Your task to perform on an android device: Clear all items from cart on target. Search for razer huntsman on target, select the first entry, and add it to the cart. Image 0: 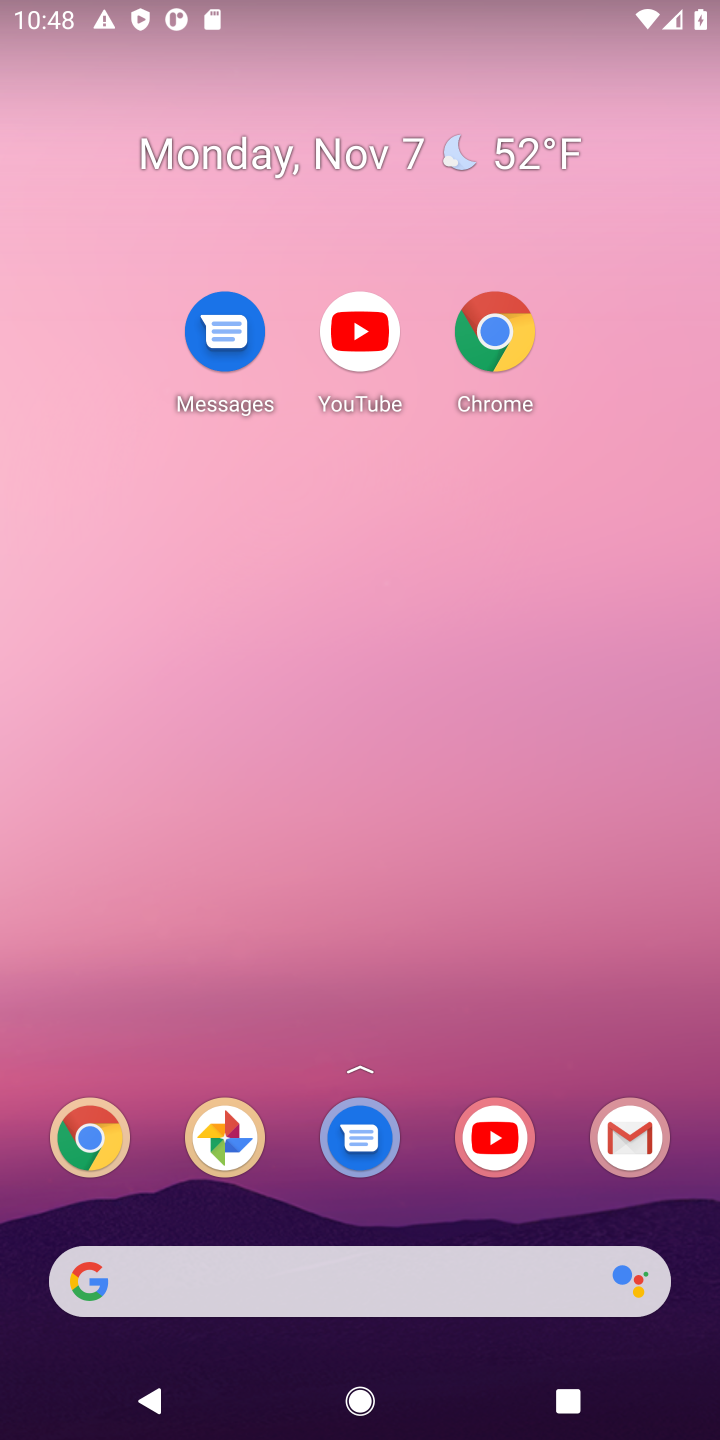
Step 0: drag from (380, 819) to (394, 286)
Your task to perform on an android device: Clear all items from cart on target. Search for razer huntsman on target, select the first entry, and add it to the cart. Image 1: 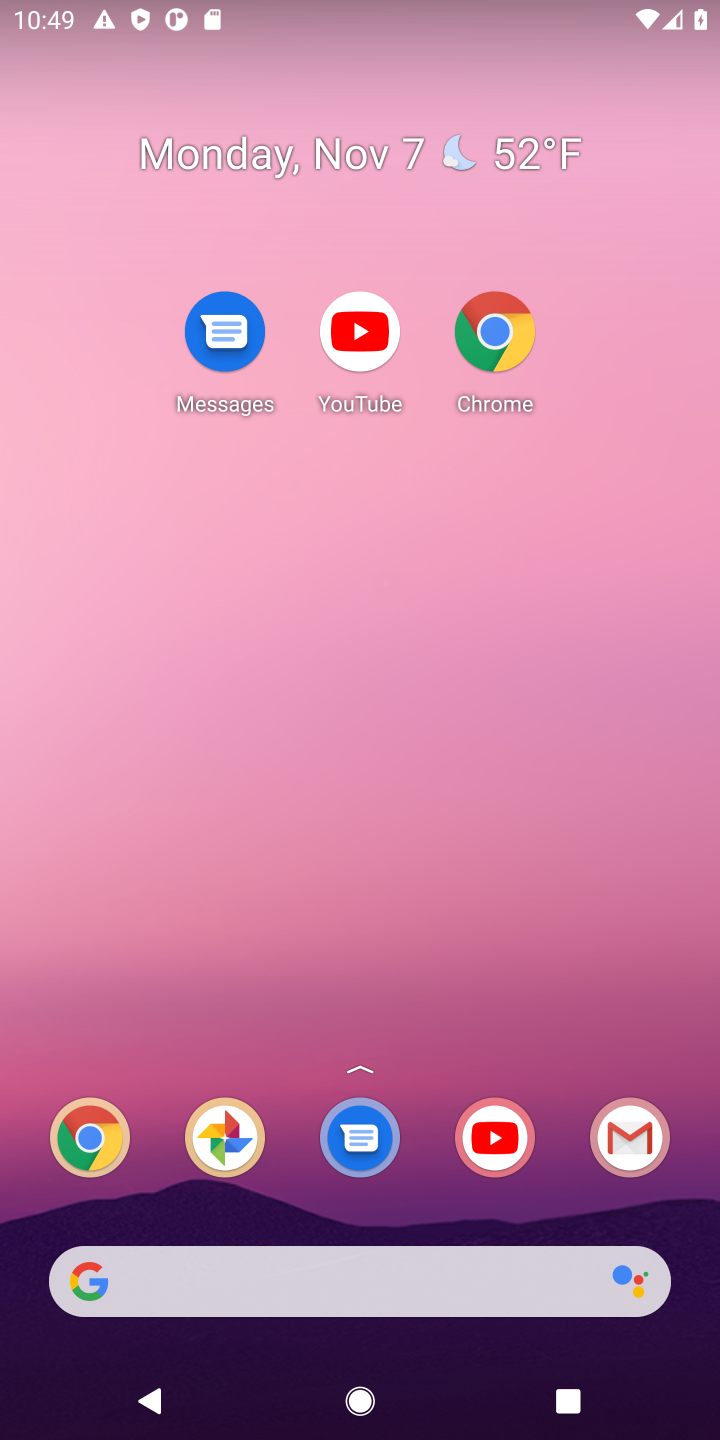
Step 1: drag from (429, 1181) to (415, 72)
Your task to perform on an android device: Clear all items from cart on target. Search for razer huntsman on target, select the first entry, and add it to the cart. Image 2: 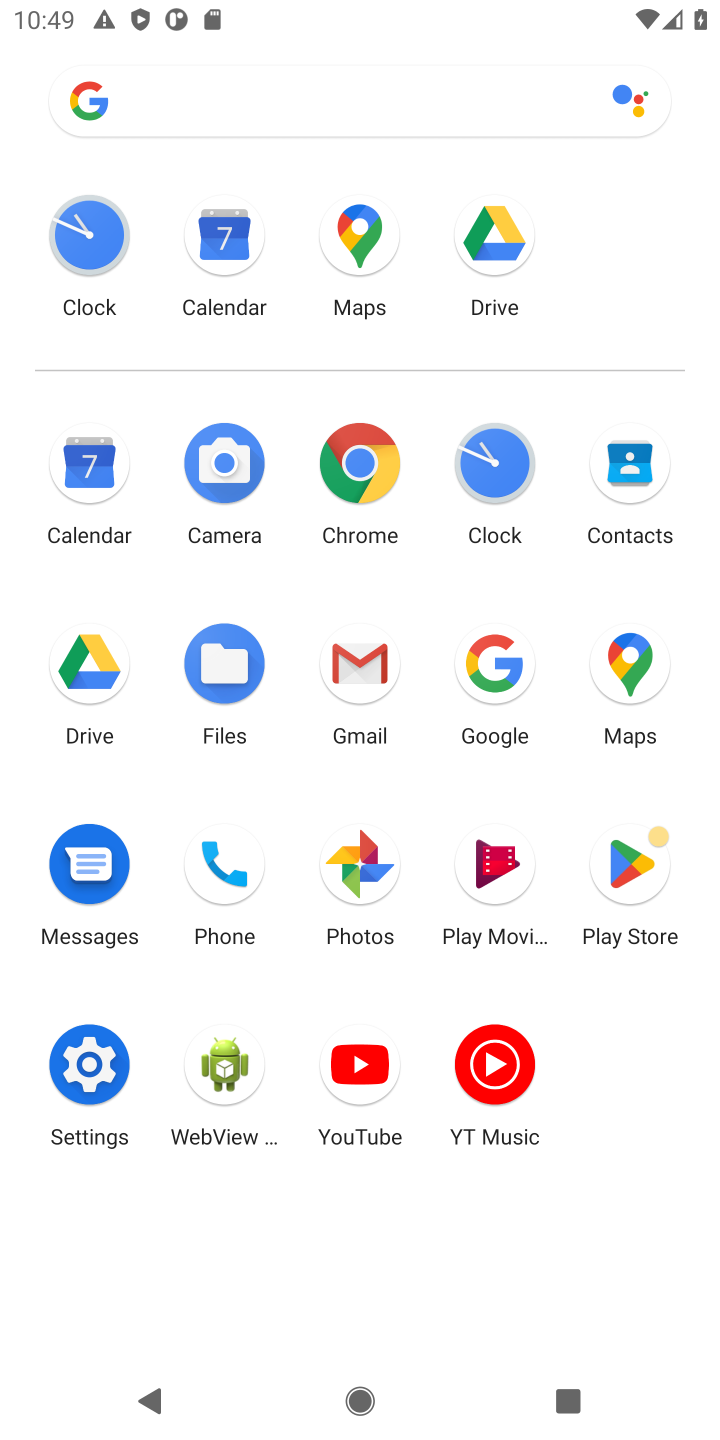
Step 2: click (357, 470)
Your task to perform on an android device: Clear all items from cart on target. Search for razer huntsman on target, select the first entry, and add it to the cart. Image 3: 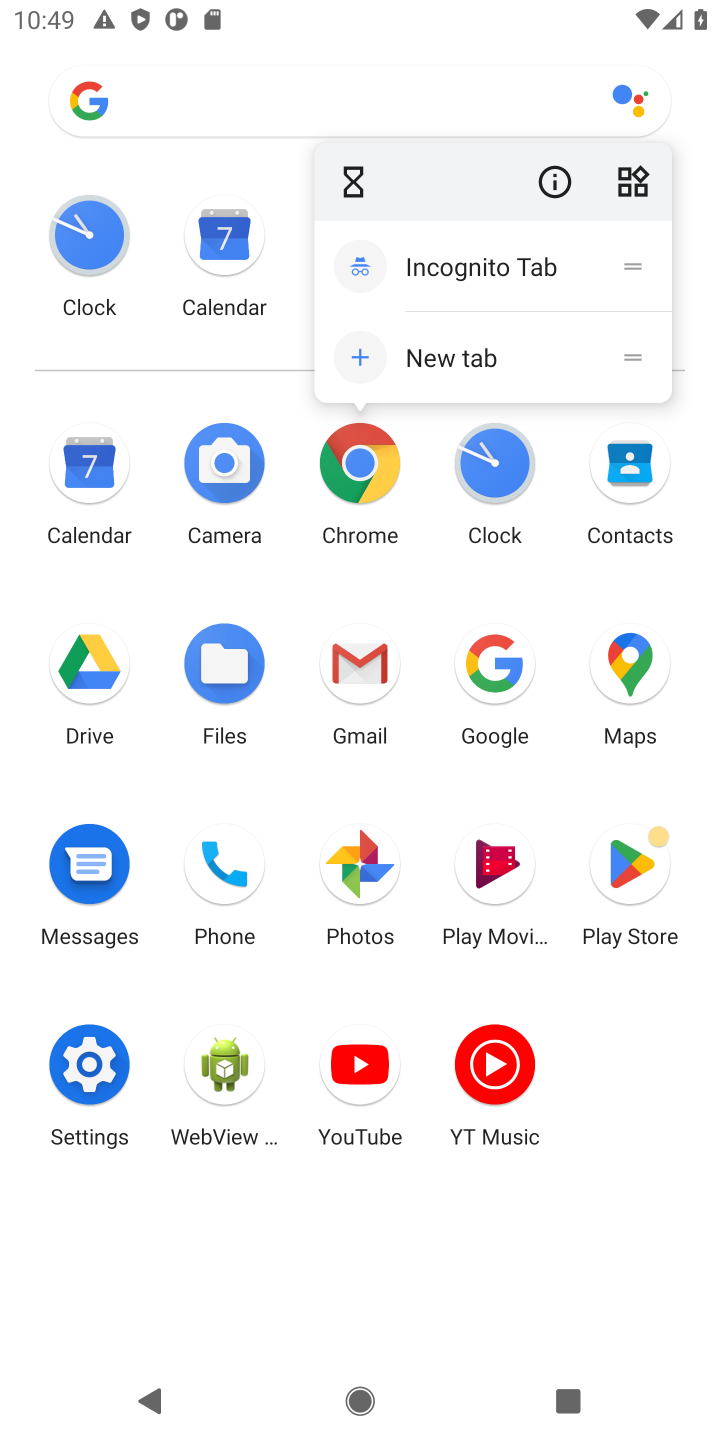
Step 3: click (370, 468)
Your task to perform on an android device: Clear all items from cart on target. Search for razer huntsman on target, select the first entry, and add it to the cart. Image 4: 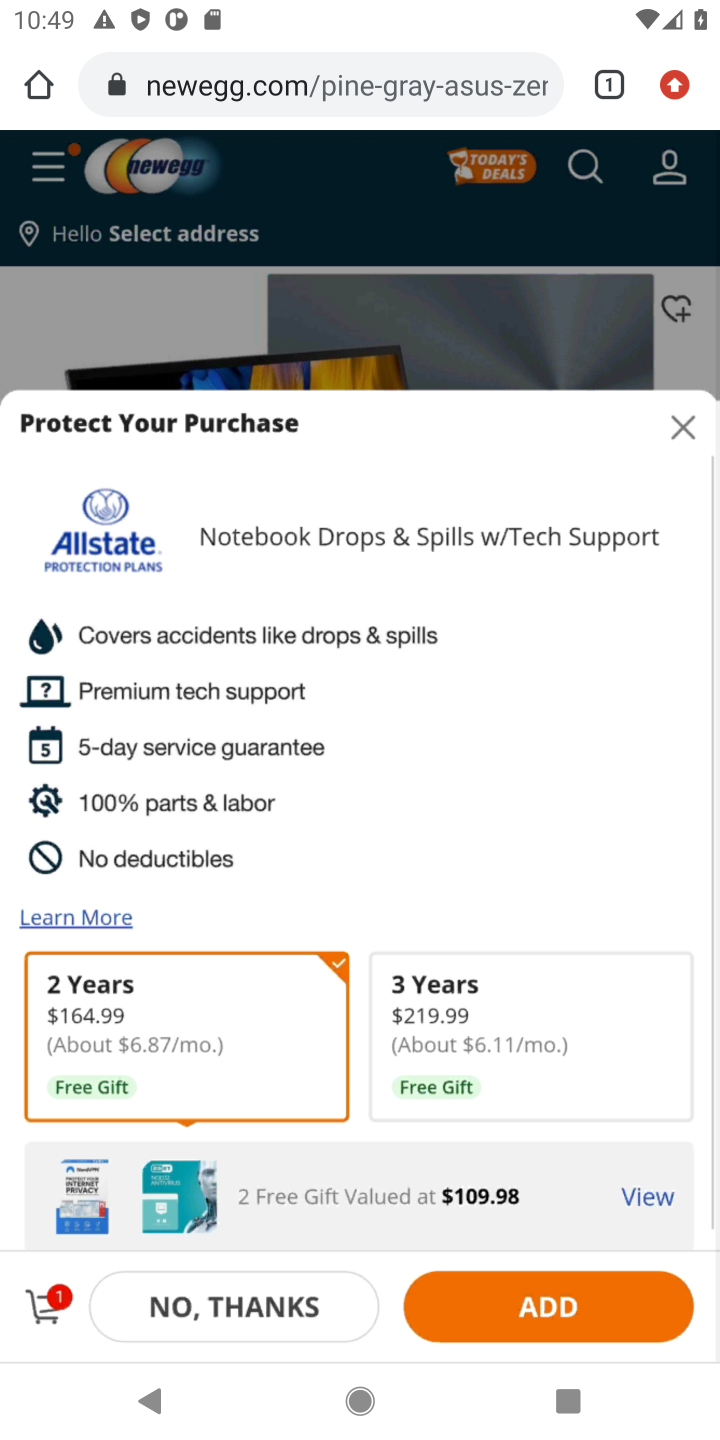
Step 4: click (349, 76)
Your task to perform on an android device: Clear all items from cart on target. Search for razer huntsman on target, select the first entry, and add it to the cart. Image 5: 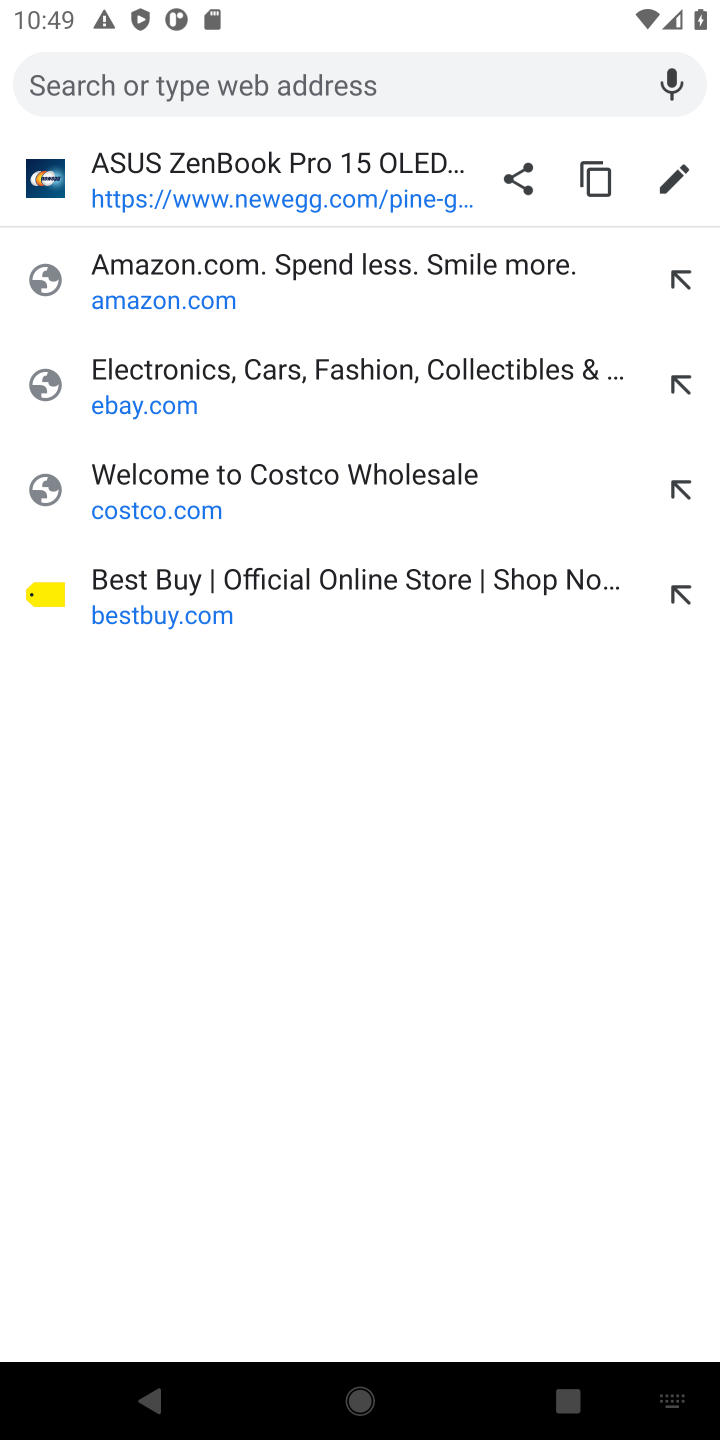
Step 5: type "target.com"
Your task to perform on an android device: Clear all items from cart on target. Search for razer huntsman on target, select the first entry, and add it to the cart. Image 6: 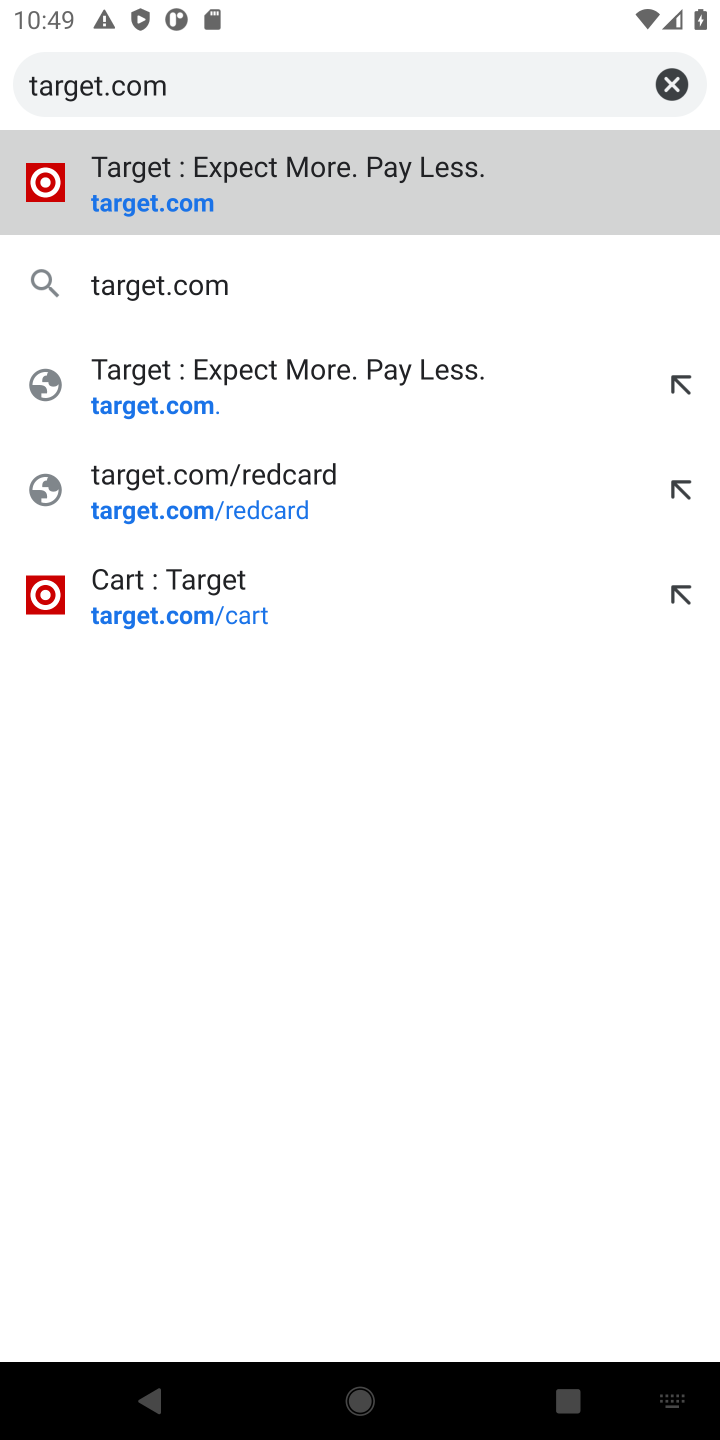
Step 6: press enter
Your task to perform on an android device: Clear all items from cart on target. Search for razer huntsman on target, select the first entry, and add it to the cart. Image 7: 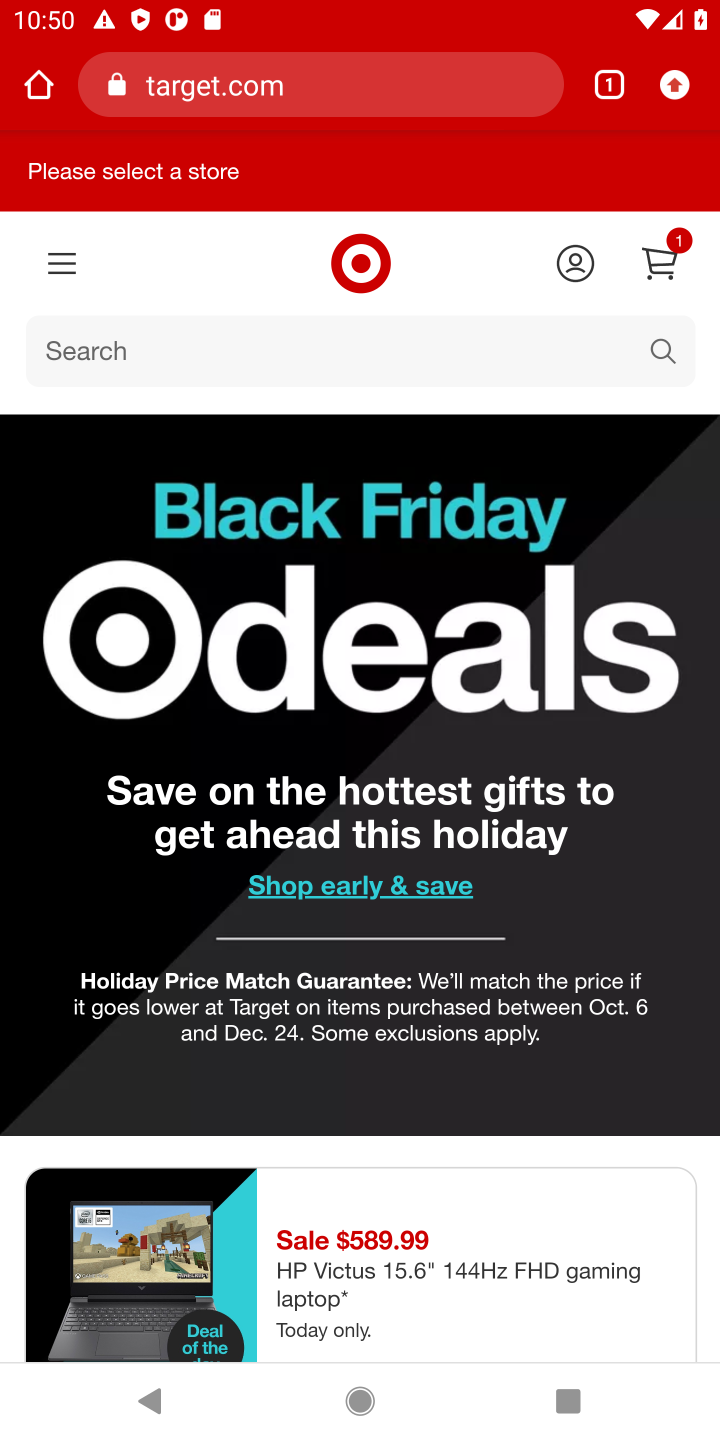
Step 7: click (662, 263)
Your task to perform on an android device: Clear all items from cart on target. Search for razer huntsman on target, select the first entry, and add it to the cart. Image 8: 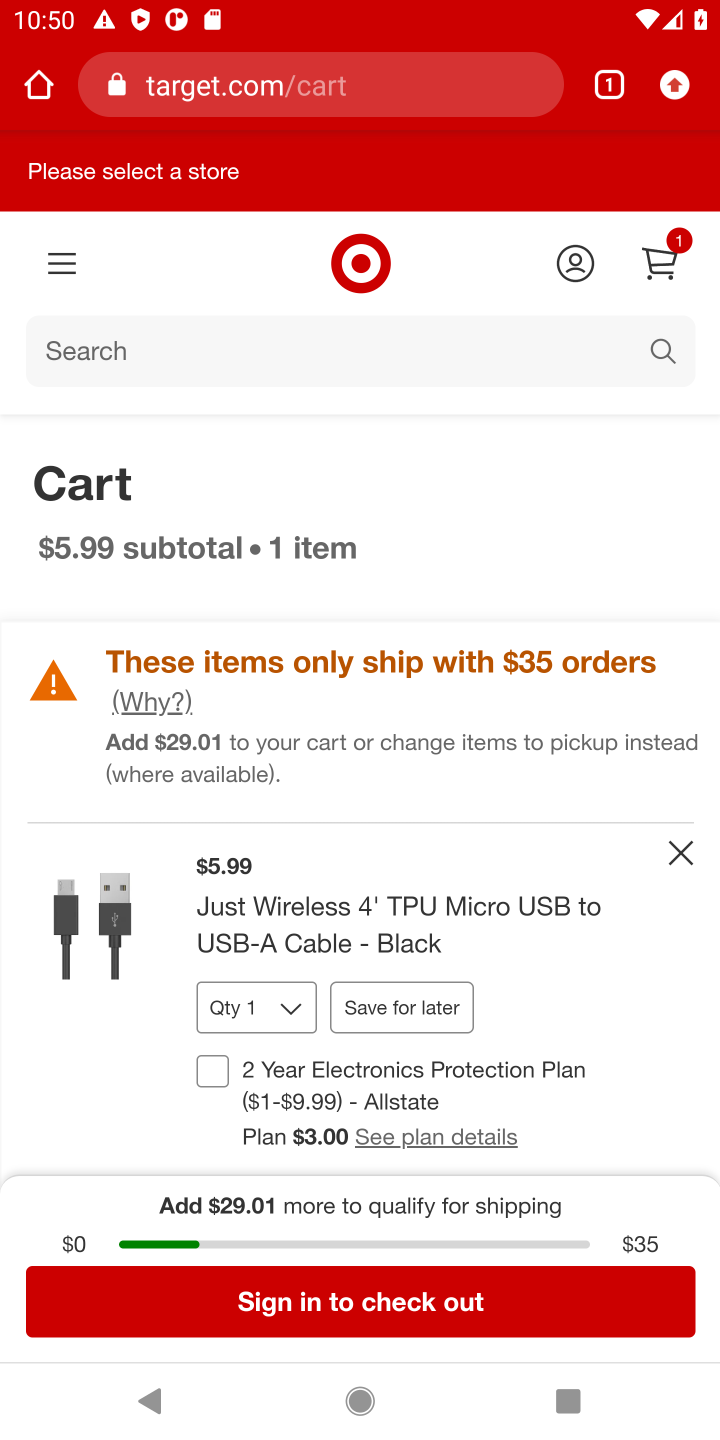
Step 8: click (679, 857)
Your task to perform on an android device: Clear all items from cart on target. Search for razer huntsman on target, select the first entry, and add it to the cart. Image 9: 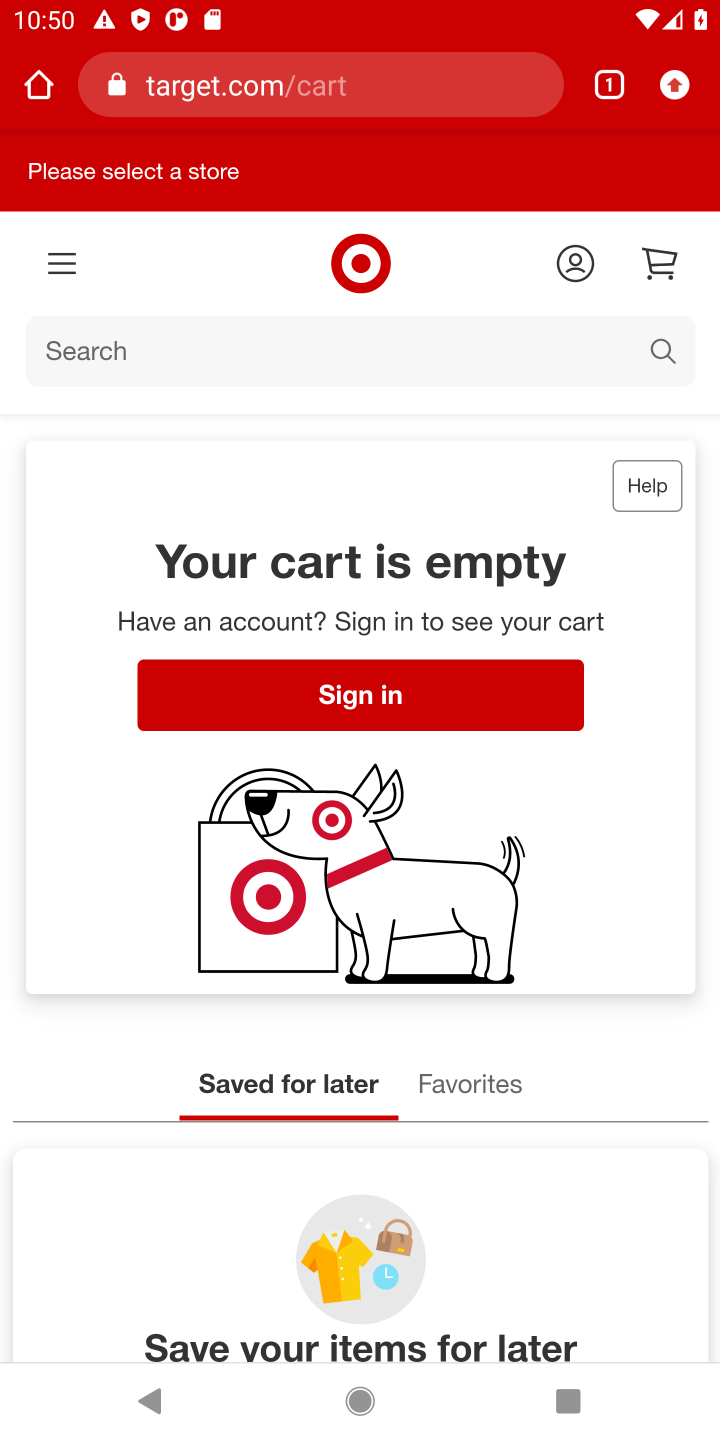
Step 9: click (386, 357)
Your task to perform on an android device: Clear all items from cart on target. Search for razer huntsman on target, select the first entry, and add it to the cart. Image 10: 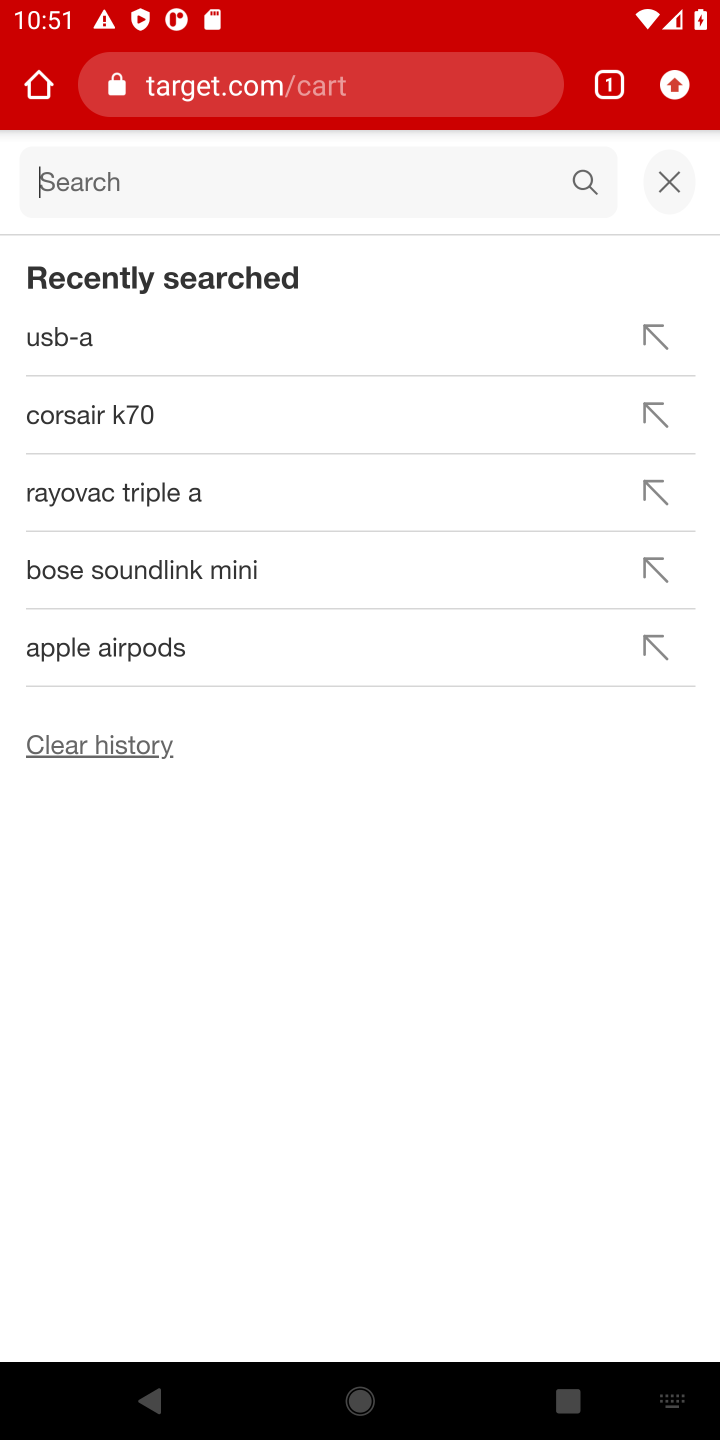
Step 10: type "razer huntsman"
Your task to perform on an android device: Clear all items from cart on target. Search for razer huntsman on target, select the first entry, and add it to the cart. Image 11: 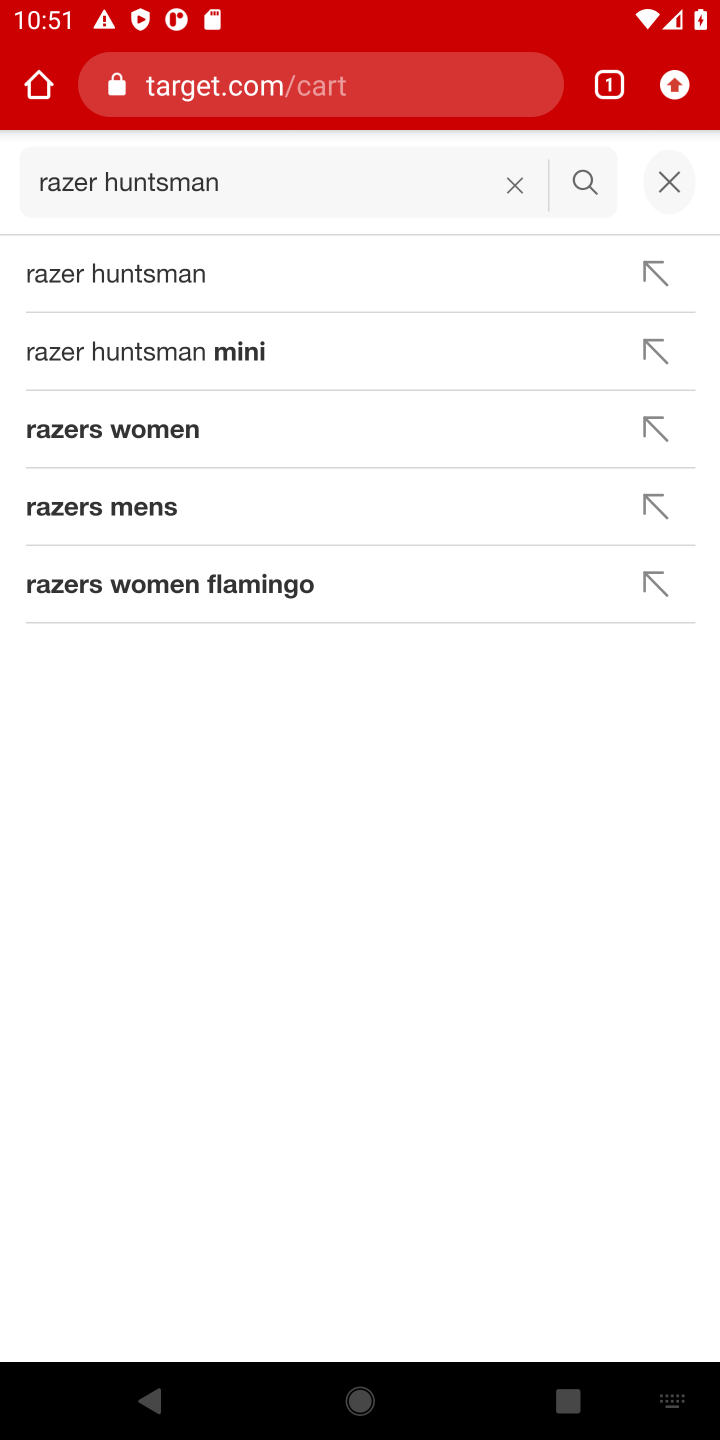
Step 11: press enter
Your task to perform on an android device: Clear all items from cart on target. Search for razer huntsman on target, select the first entry, and add it to the cart. Image 12: 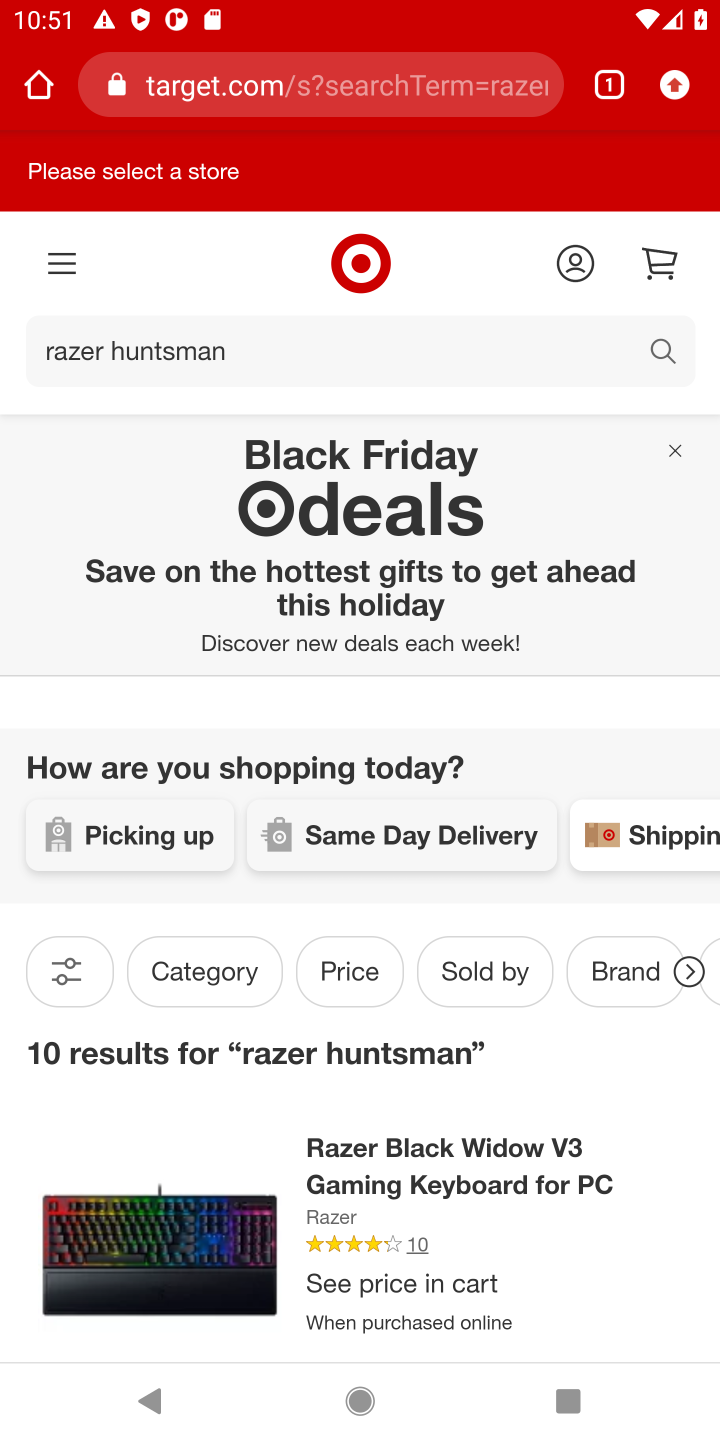
Step 12: task complete